Your task to perform on an android device: Go to wifi settings Image 0: 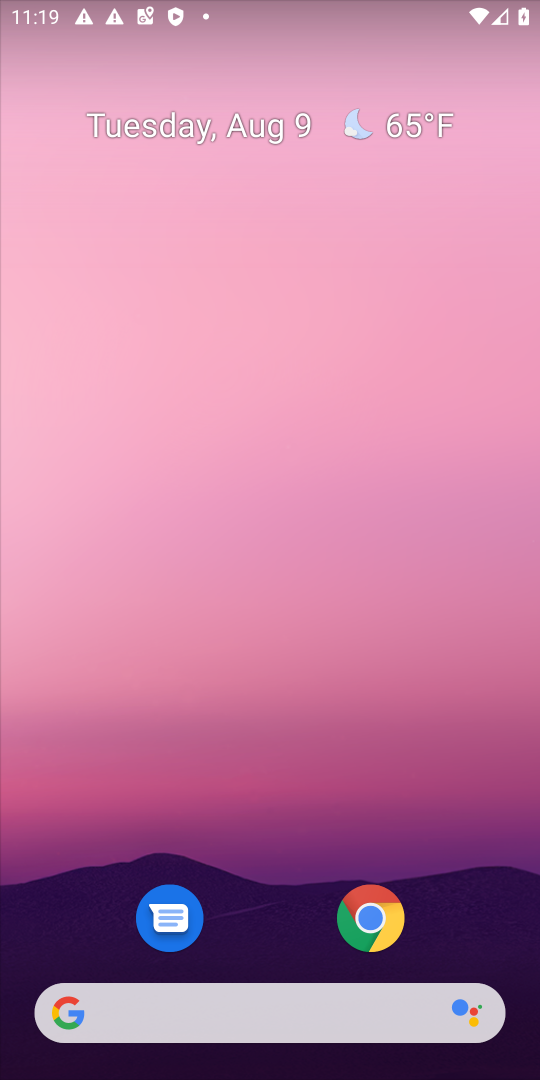
Step 0: drag from (282, 739) to (312, 141)
Your task to perform on an android device: Go to wifi settings Image 1: 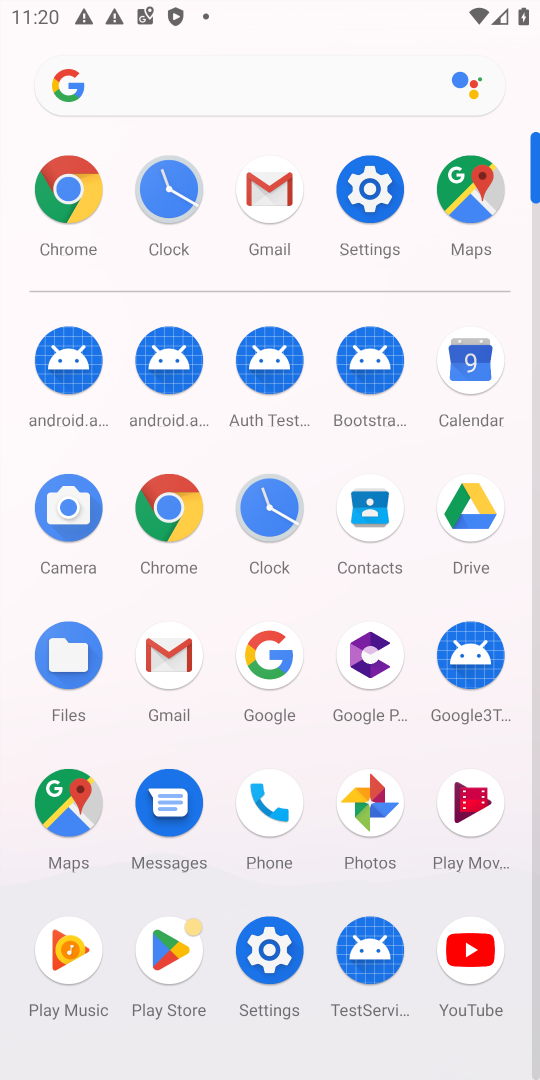
Step 1: click (263, 946)
Your task to perform on an android device: Go to wifi settings Image 2: 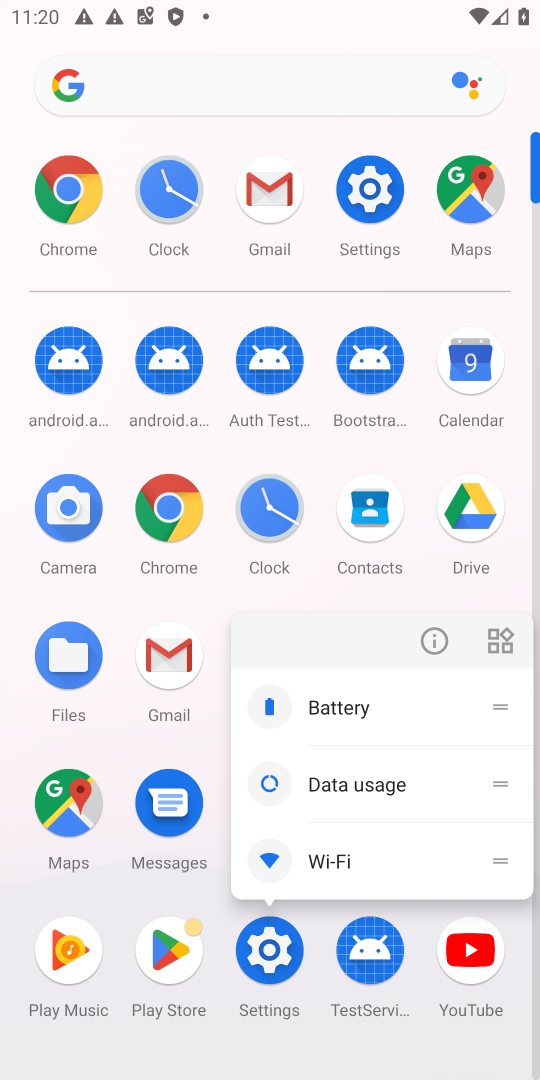
Step 2: click (263, 946)
Your task to perform on an android device: Go to wifi settings Image 3: 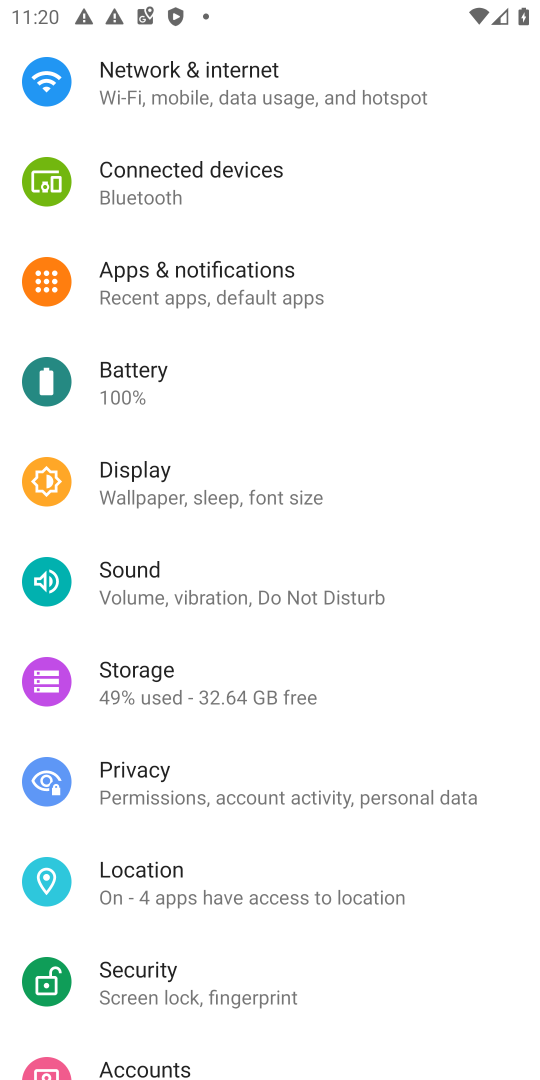
Step 3: click (334, 84)
Your task to perform on an android device: Go to wifi settings Image 4: 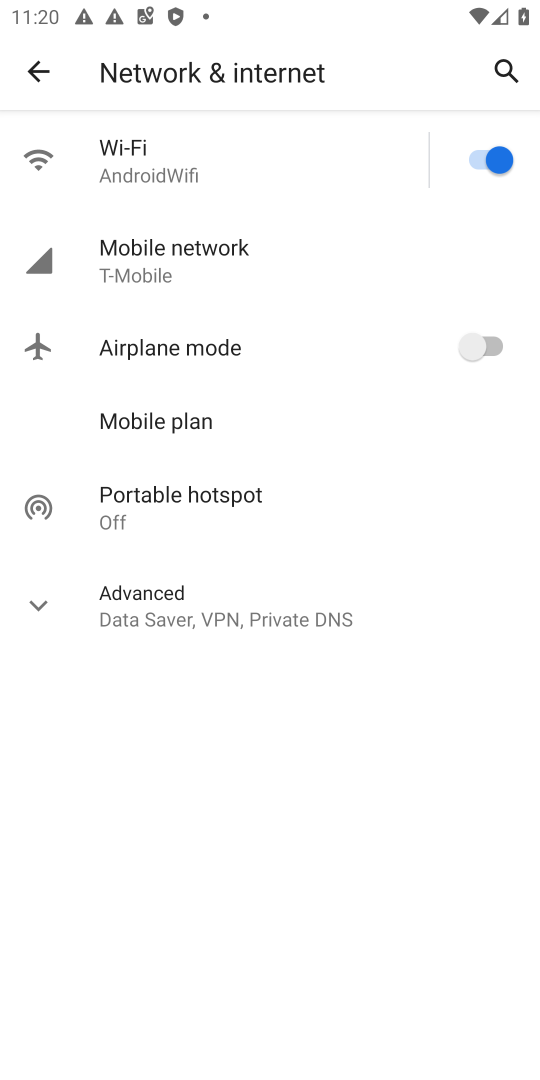
Step 4: click (213, 158)
Your task to perform on an android device: Go to wifi settings Image 5: 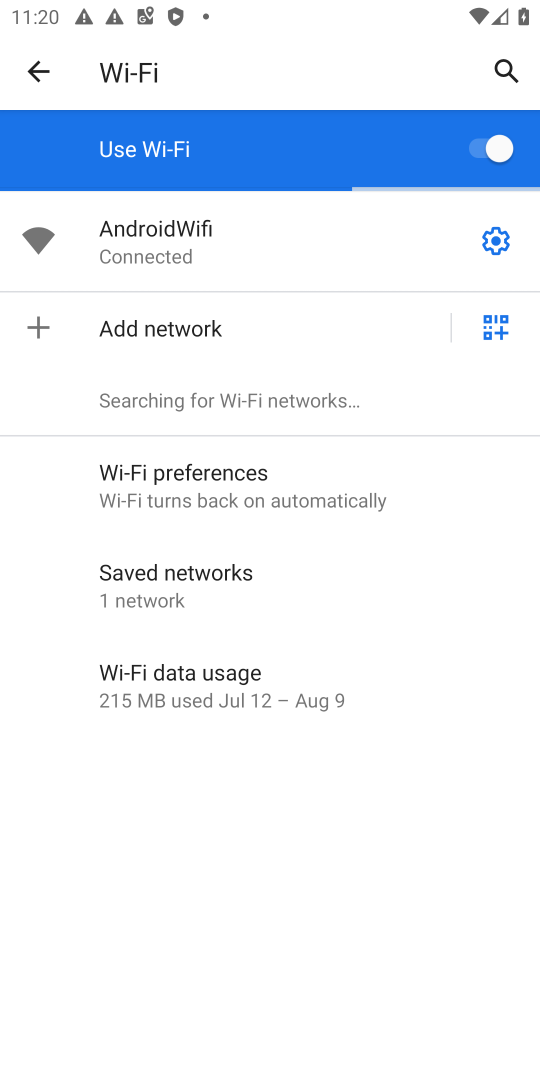
Step 5: click (503, 241)
Your task to perform on an android device: Go to wifi settings Image 6: 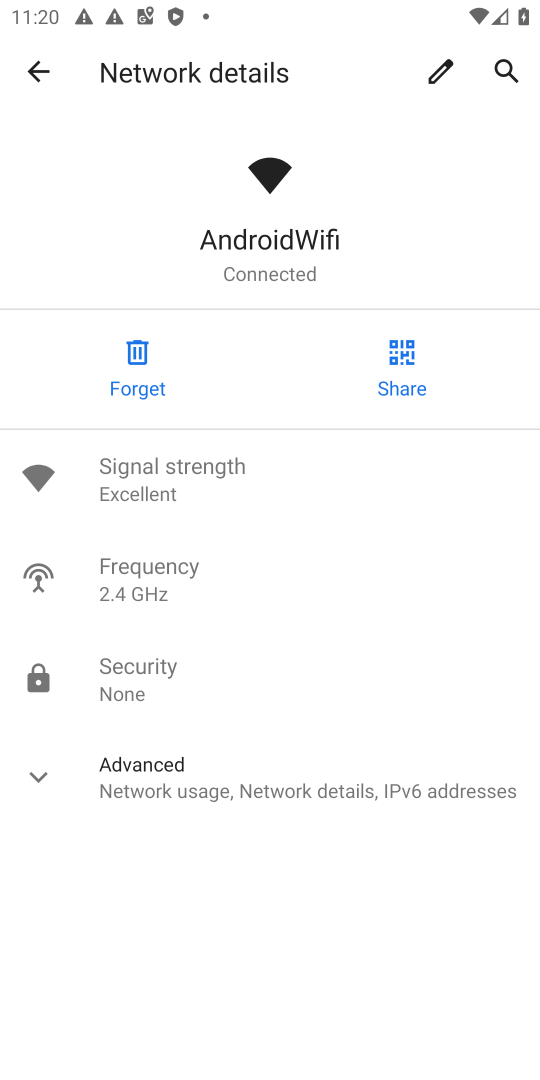
Step 6: task complete